Your task to perform on an android device: Open privacy settings Image 0: 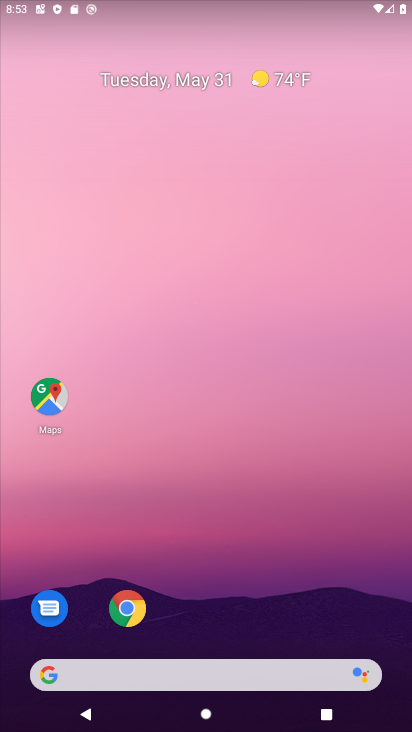
Step 0: drag from (204, 646) to (116, 95)
Your task to perform on an android device: Open privacy settings Image 1: 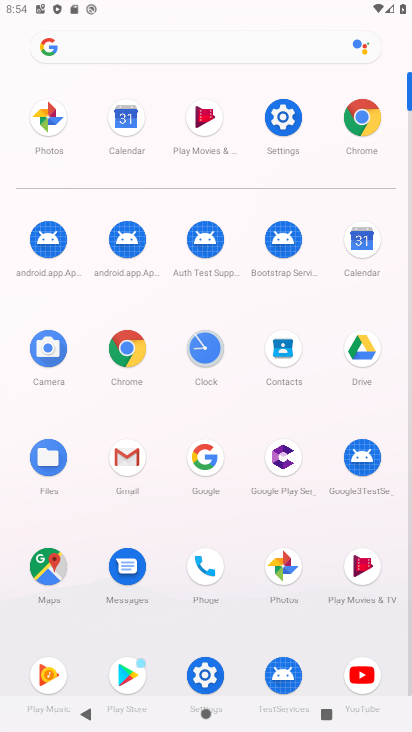
Step 1: click (273, 119)
Your task to perform on an android device: Open privacy settings Image 2: 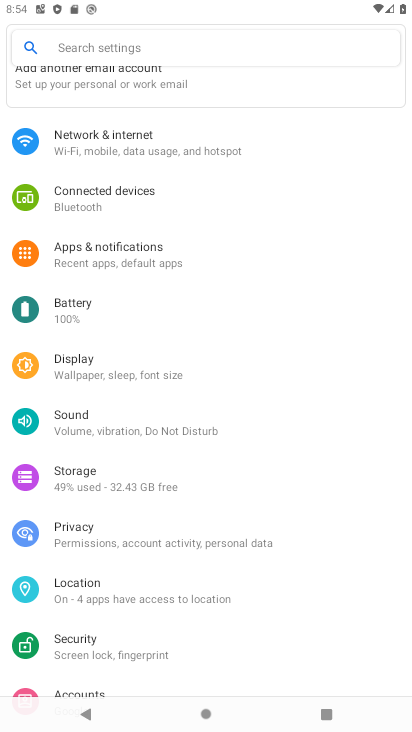
Step 2: click (87, 521)
Your task to perform on an android device: Open privacy settings Image 3: 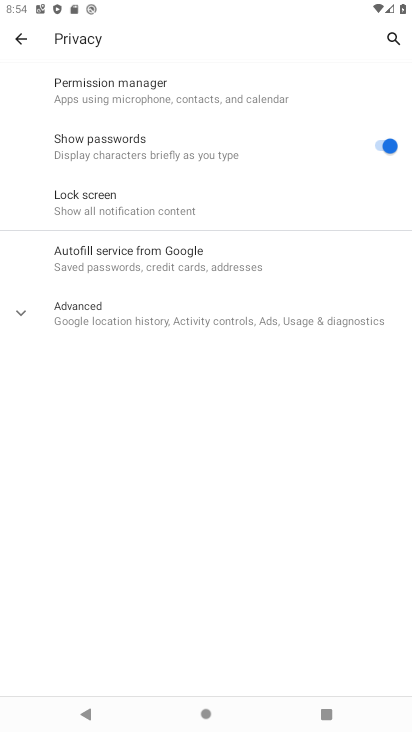
Step 3: task complete